Your task to perform on an android device: change the clock display to analog Image 0: 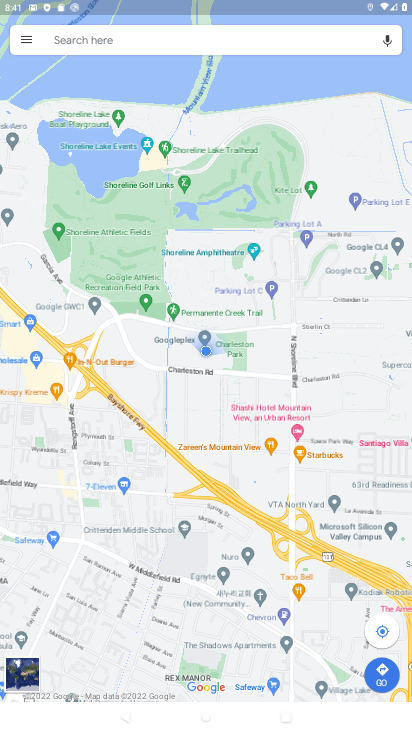
Step 0: press home button
Your task to perform on an android device: change the clock display to analog Image 1: 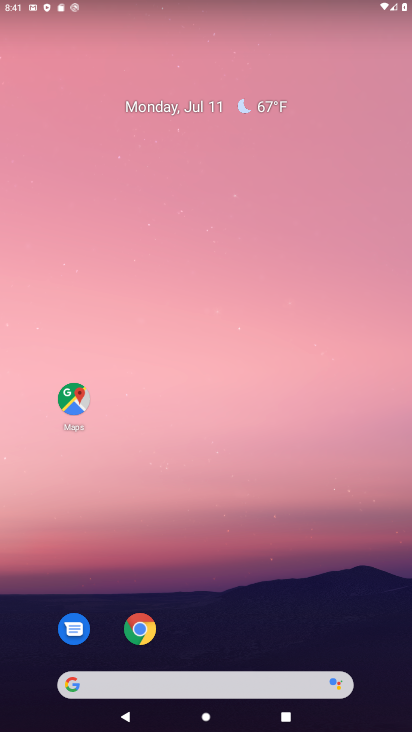
Step 1: drag from (286, 566) to (319, 10)
Your task to perform on an android device: change the clock display to analog Image 2: 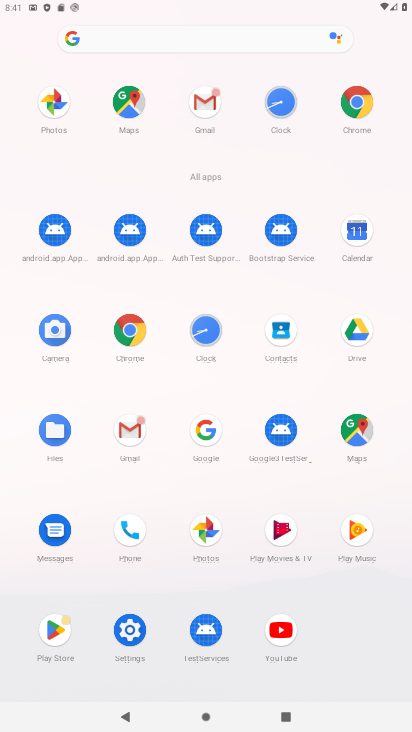
Step 2: click (198, 327)
Your task to perform on an android device: change the clock display to analog Image 3: 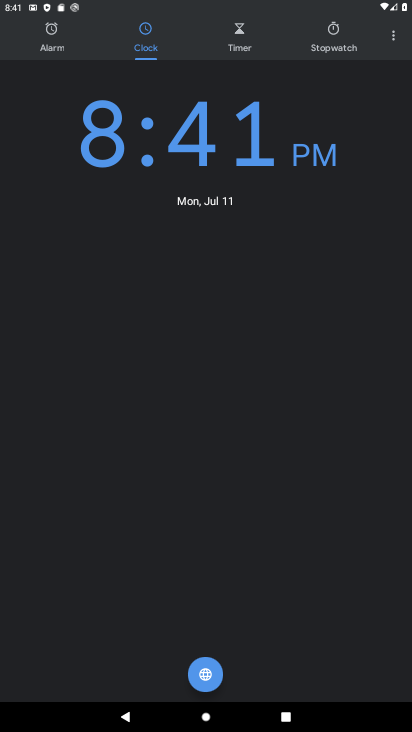
Step 3: click (396, 35)
Your task to perform on an android device: change the clock display to analog Image 4: 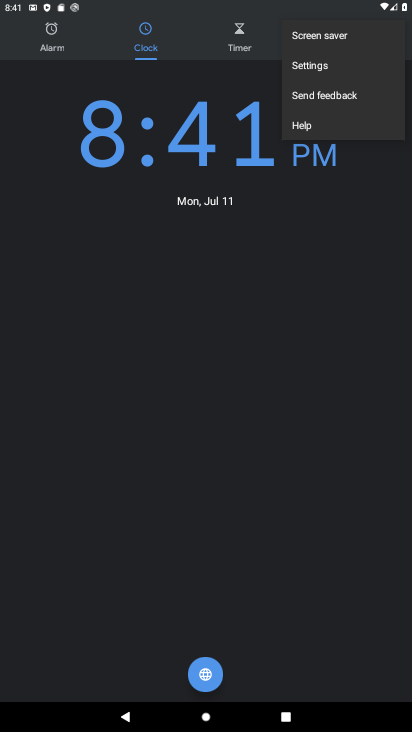
Step 4: click (315, 63)
Your task to perform on an android device: change the clock display to analog Image 5: 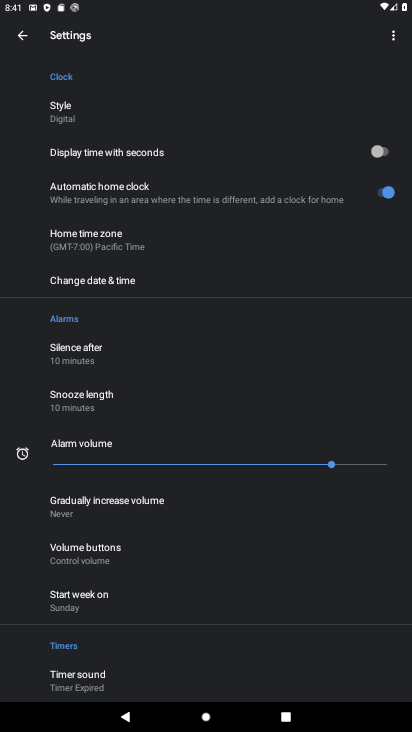
Step 5: click (66, 105)
Your task to perform on an android device: change the clock display to analog Image 6: 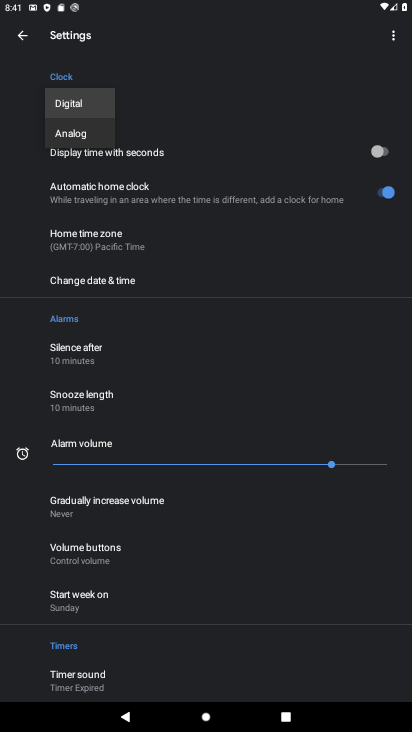
Step 6: click (69, 134)
Your task to perform on an android device: change the clock display to analog Image 7: 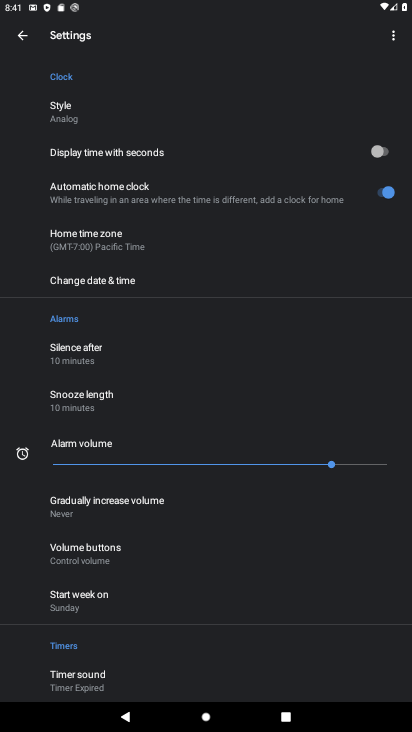
Step 7: task complete